Your task to perform on an android device: Show me popular videos on Youtube Image 0: 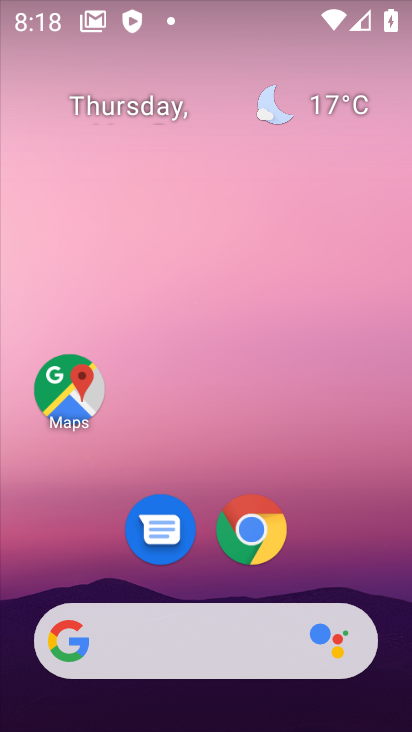
Step 0: drag from (320, 425) to (319, 0)
Your task to perform on an android device: Show me popular videos on Youtube Image 1: 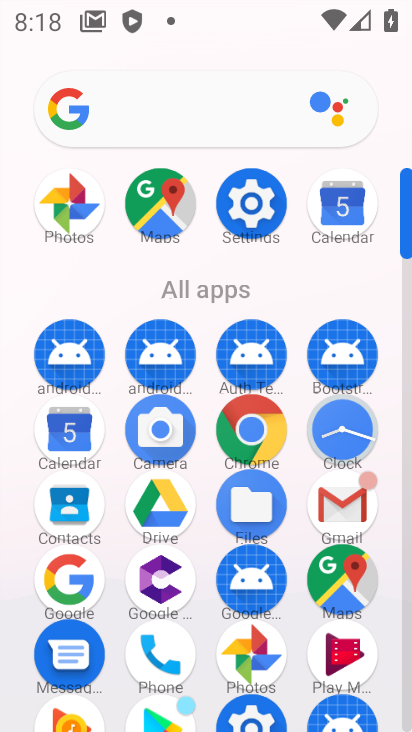
Step 1: drag from (406, 240) to (391, 649)
Your task to perform on an android device: Show me popular videos on Youtube Image 2: 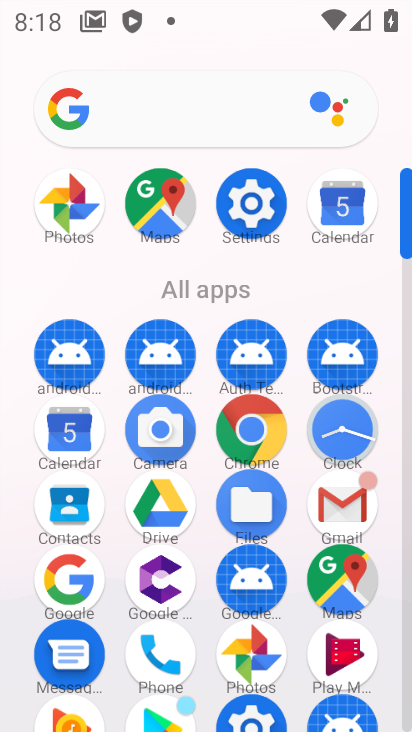
Step 2: click (407, 701)
Your task to perform on an android device: Show me popular videos on Youtube Image 3: 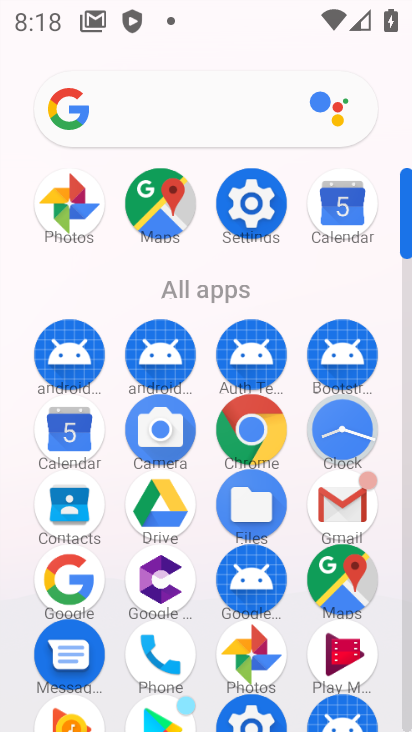
Step 3: click (407, 701)
Your task to perform on an android device: Show me popular videos on Youtube Image 4: 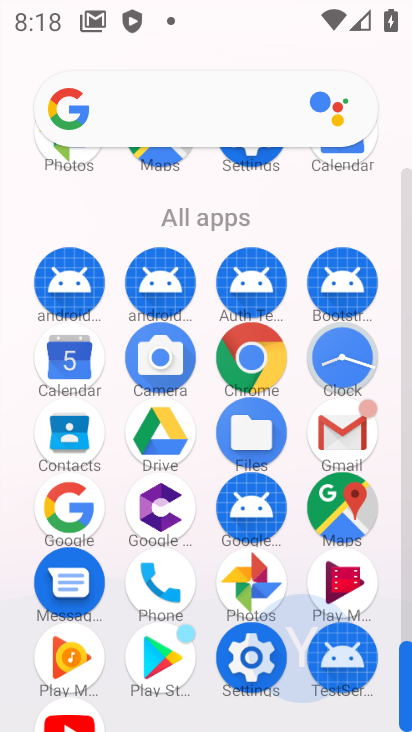
Step 4: click (407, 701)
Your task to perform on an android device: Show me popular videos on Youtube Image 5: 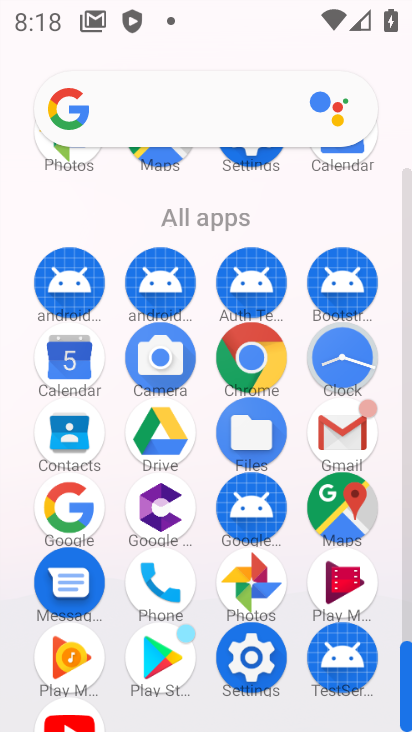
Step 5: click (407, 701)
Your task to perform on an android device: Show me popular videos on Youtube Image 6: 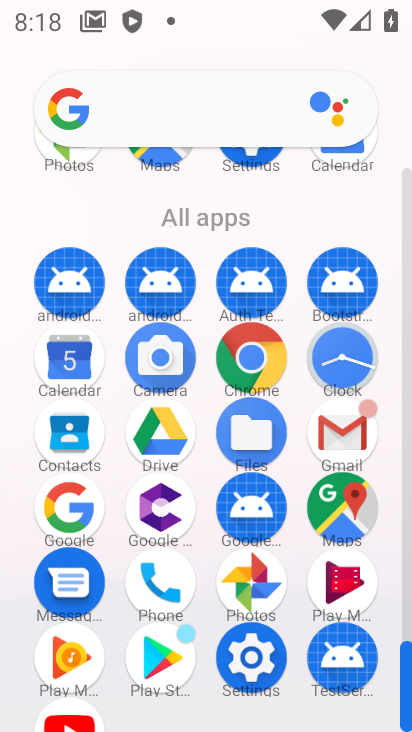
Step 6: click (79, 713)
Your task to perform on an android device: Show me popular videos on Youtube Image 7: 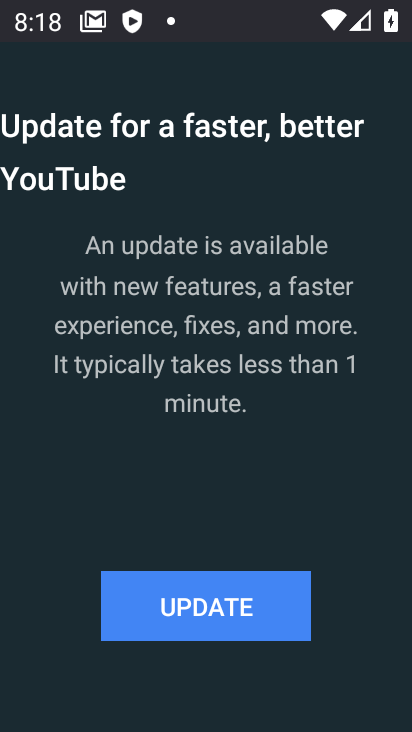
Step 7: click (224, 611)
Your task to perform on an android device: Show me popular videos on Youtube Image 8: 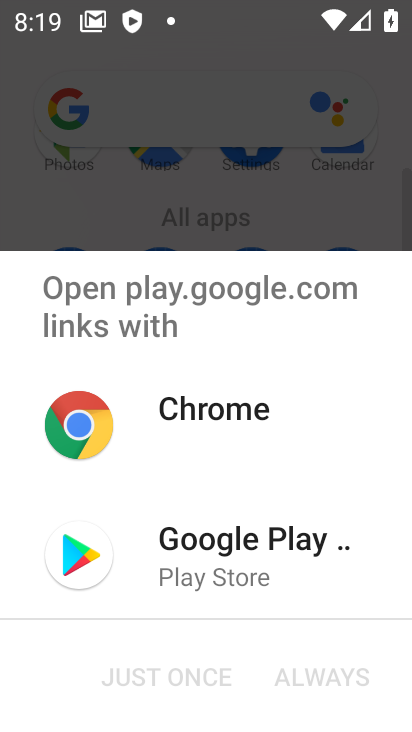
Step 8: click (205, 560)
Your task to perform on an android device: Show me popular videos on Youtube Image 9: 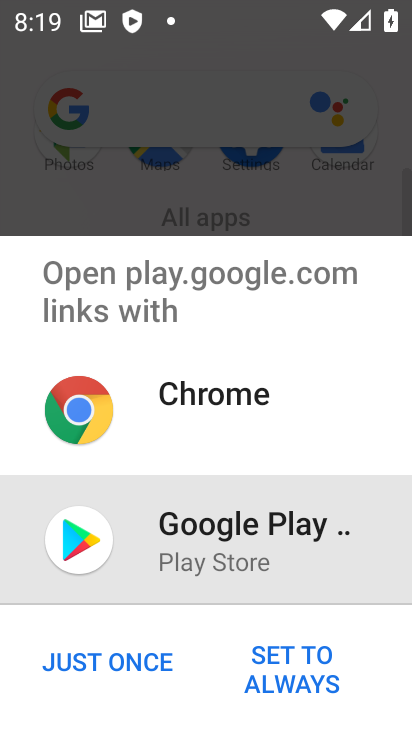
Step 9: click (132, 650)
Your task to perform on an android device: Show me popular videos on Youtube Image 10: 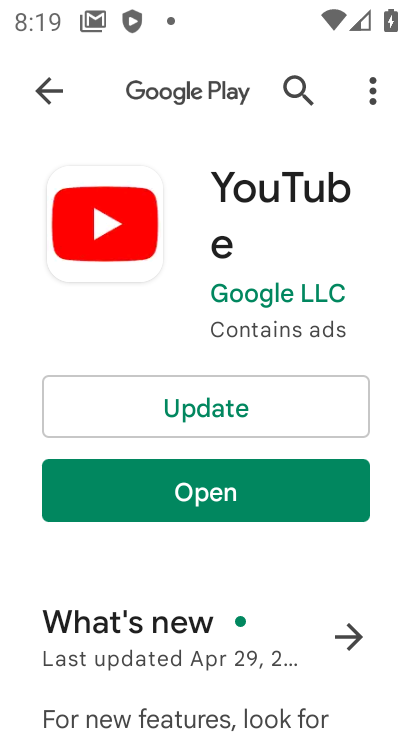
Step 10: click (233, 406)
Your task to perform on an android device: Show me popular videos on Youtube Image 11: 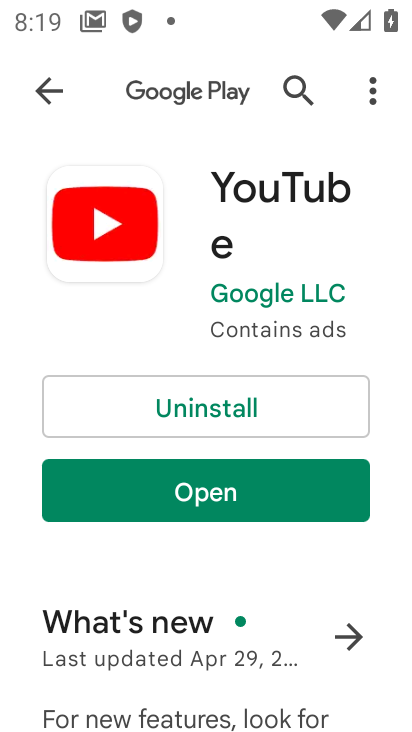
Step 11: click (198, 500)
Your task to perform on an android device: Show me popular videos on Youtube Image 12: 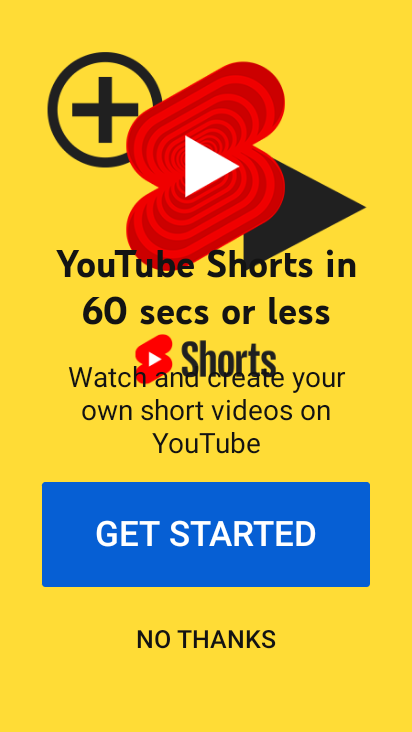
Step 12: click (114, 682)
Your task to perform on an android device: Show me popular videos on Youtube Image 13: 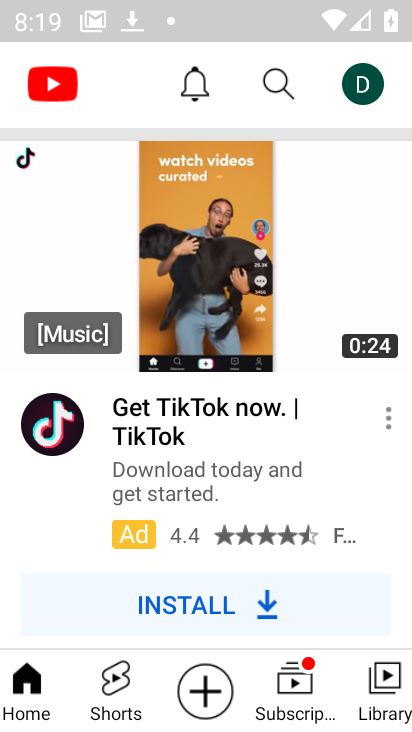
Step 13: click (114, 680)
Your task to perform on an android device: Show me popular videos on Youtube Image 14: 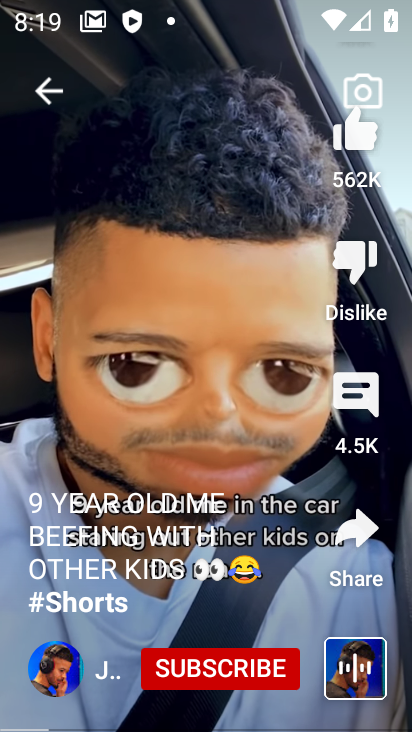
Step 14: task complete